Your task to perform on an android device: open app "Cash App" (install if not already installed) Image 0: 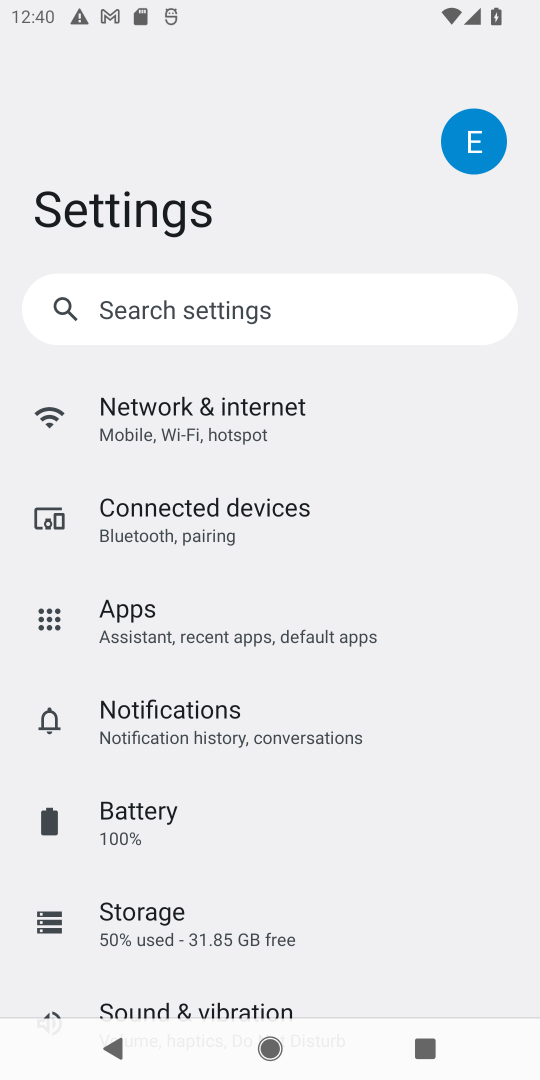
Step 0: press home button
Your task to perform on an android device: open app "Cash App" (install if not already installed) Image 1: 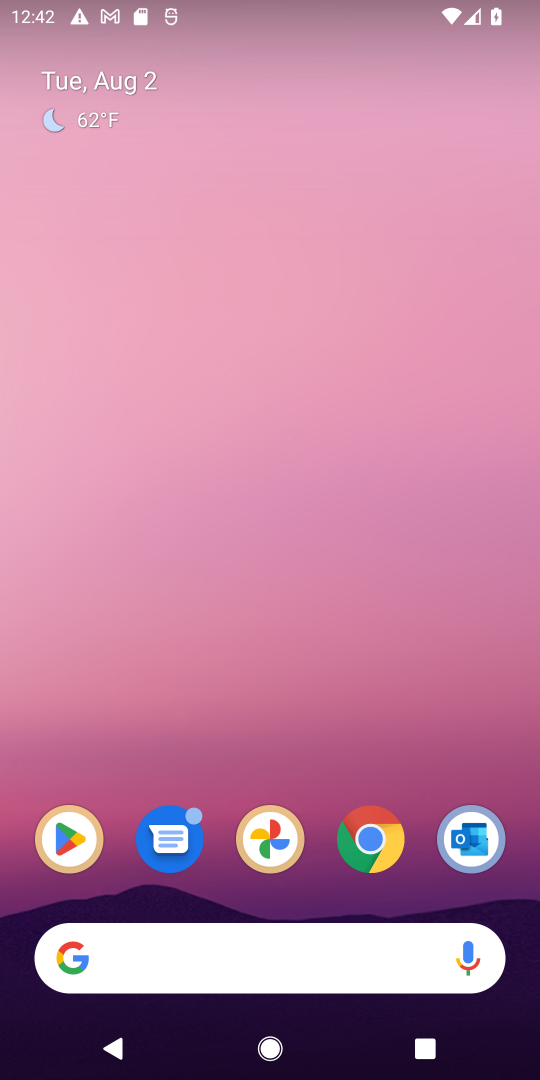
Step 1: click (58, 844)
Your task to perform on an android device: open app "Cash App" (install if not already installed) Image 2: 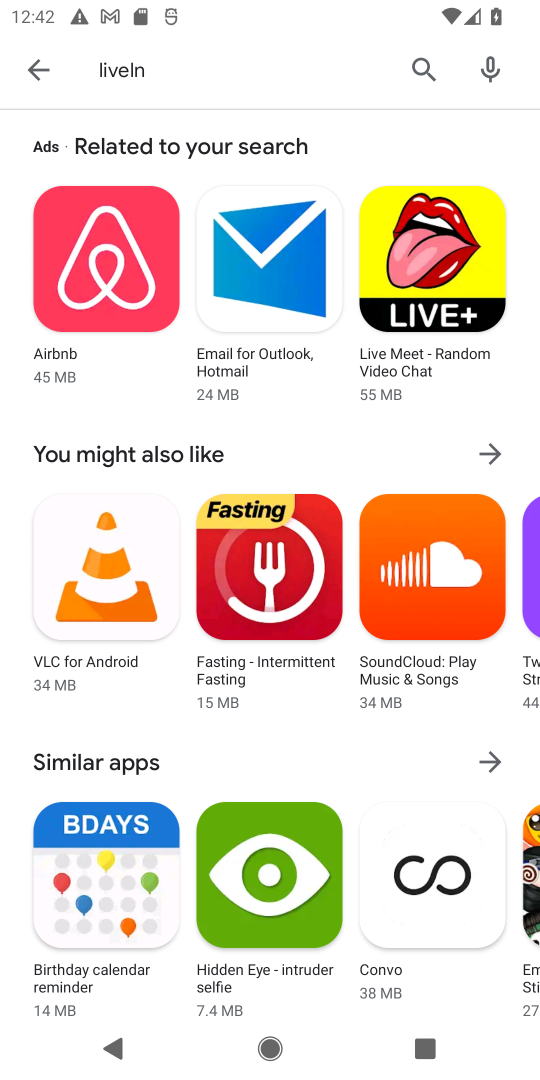
Step 2: click (436, 66)
Your task to perform on an android device: open app "Cash App" (install if not already installed) Image 3: 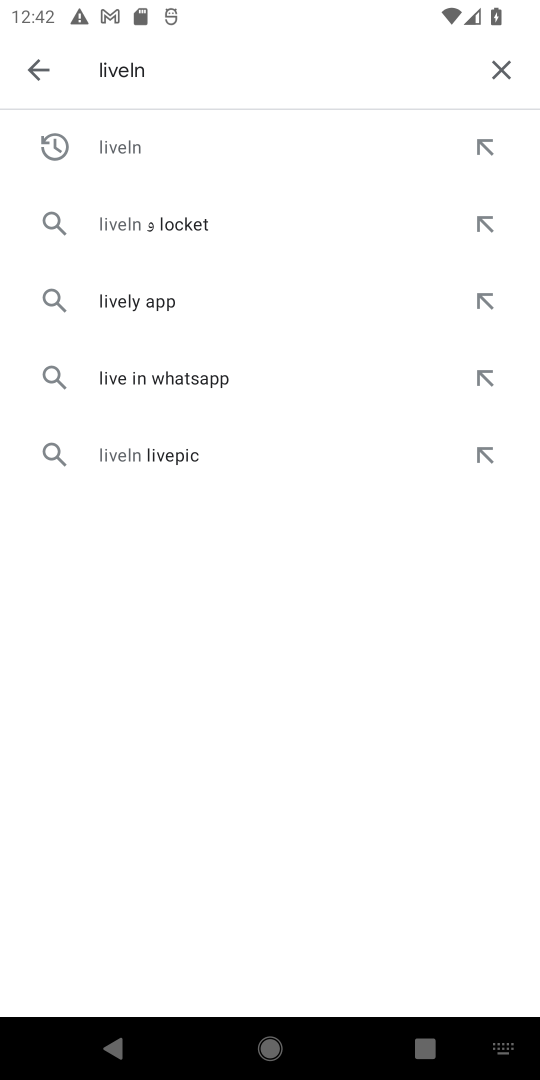
Step 3: click (508, 69)
Your task to perform on an android device: open app "Cash App" (install if not already installed) Image 4: 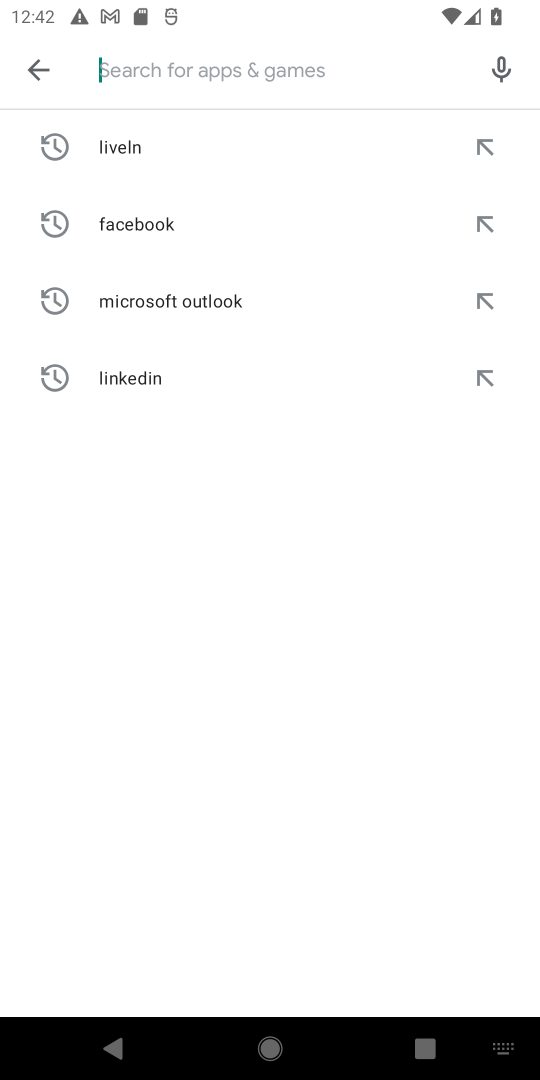
Step 4: type "cash app"
Your task to perform on an android device: open app "Cash App" (install if not already installed) Image 5: 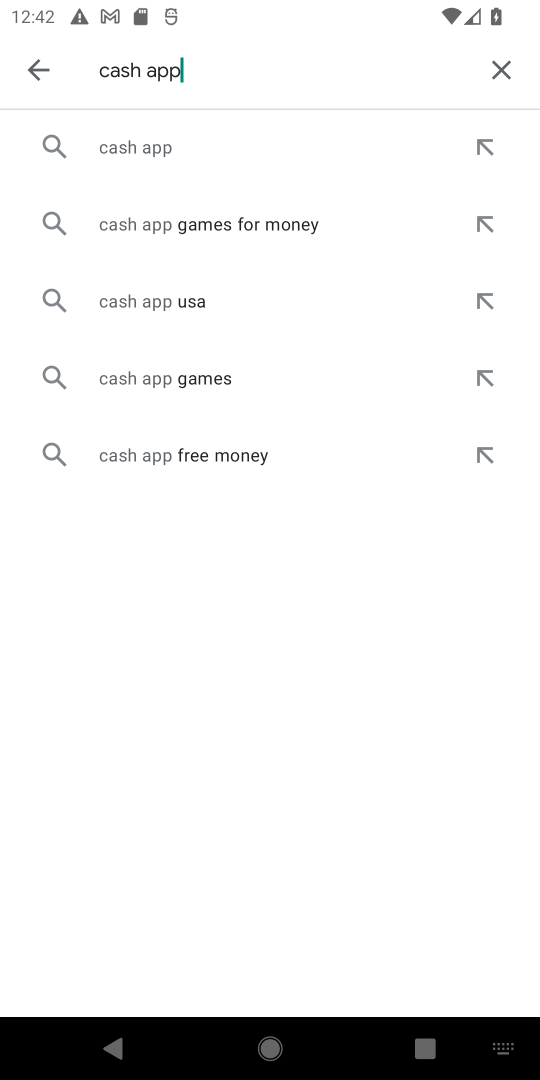
Step 5: click (244, 146)
Your task to perform on an android device: open app "Cash App" (install if not already installed) Image 6: 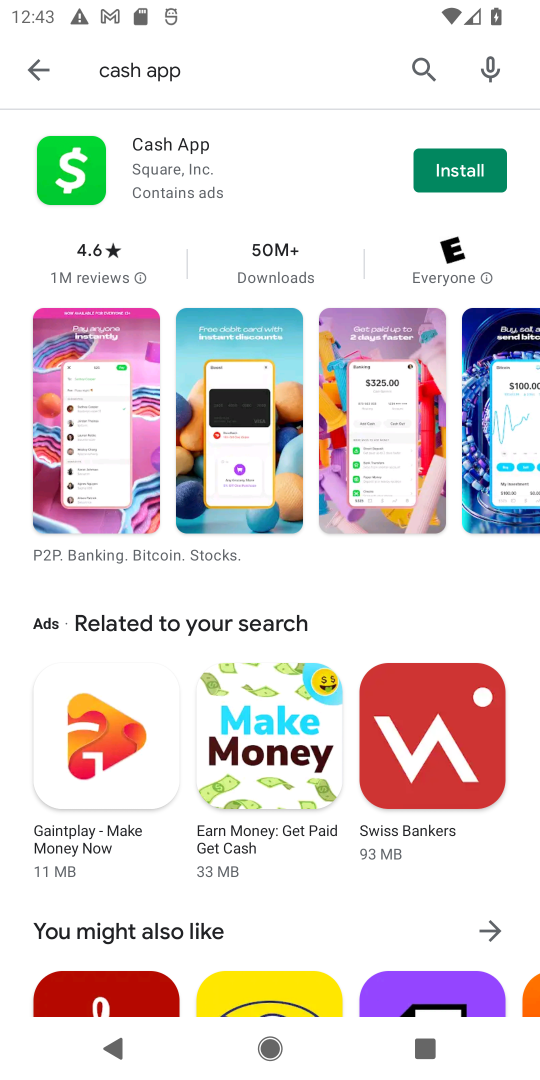
Step 6: click (451, 171)
Your task to perform on an android device: open app "Cash App" (install if not already installed) Image 7: 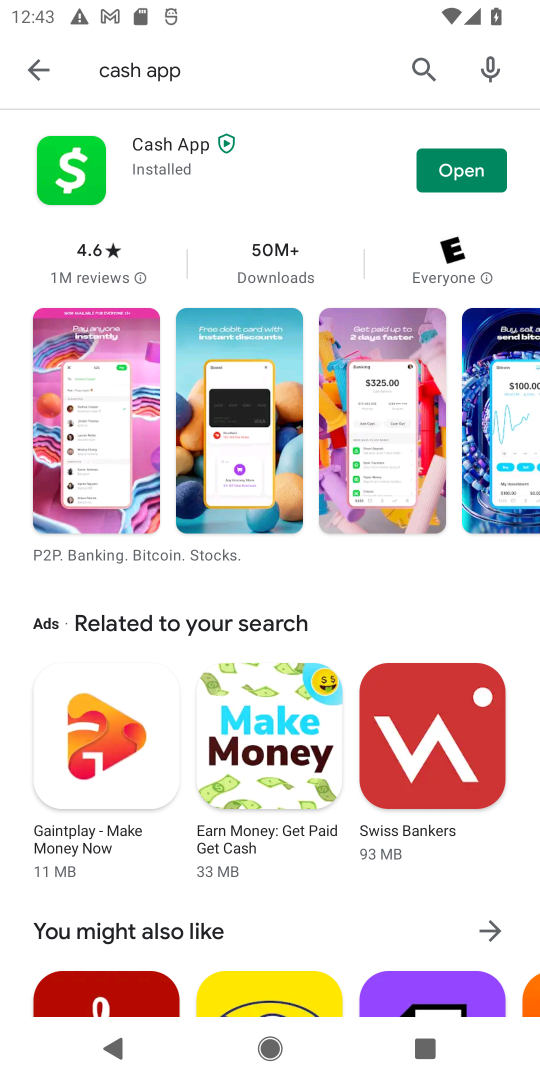
Step 7: click (458, 161)
Your task to perform on an android device: open app "Cash App" (install if not already installed) Image 8: 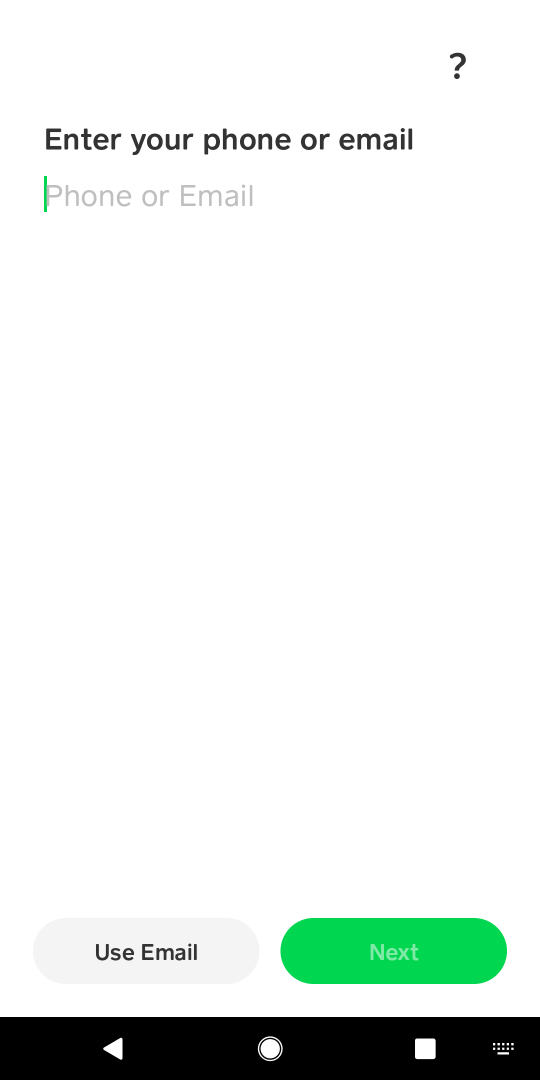
Step 8: task complete